Your task to perform on an android device: turn smart compose on in the gmail app Image 0: 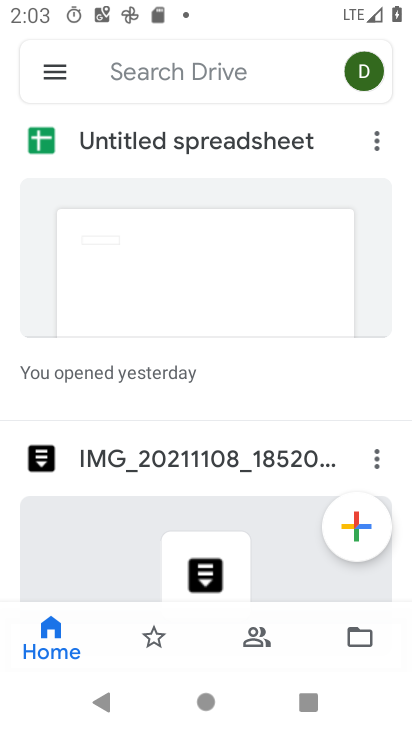
Step 0: press home button
Your task to perform on an android device: turn smart compose on in the gmail app Image 1: 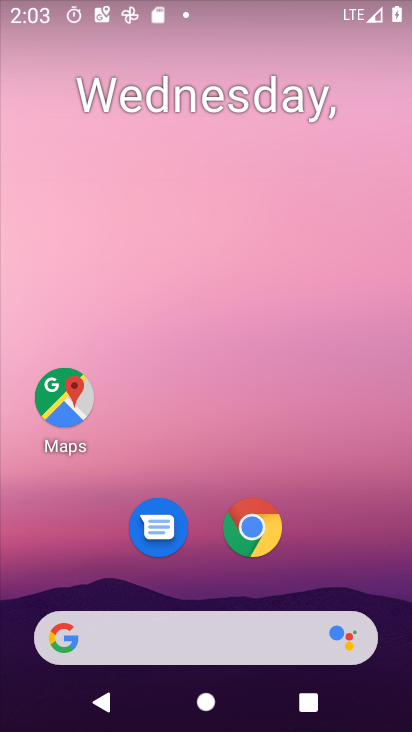
Step 1: drag from (219, 220) to (308, 0)
Your task to perform on an android device: turn smart compose on in the gmail app Image 2: 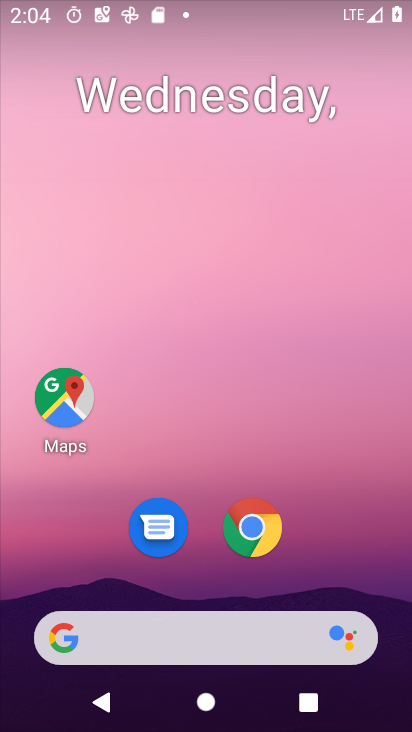
Step 2: drag from (308, 619) to (282, 37)
Your task to perform on an android device: turn smart compose on in the gmail app Image 3: 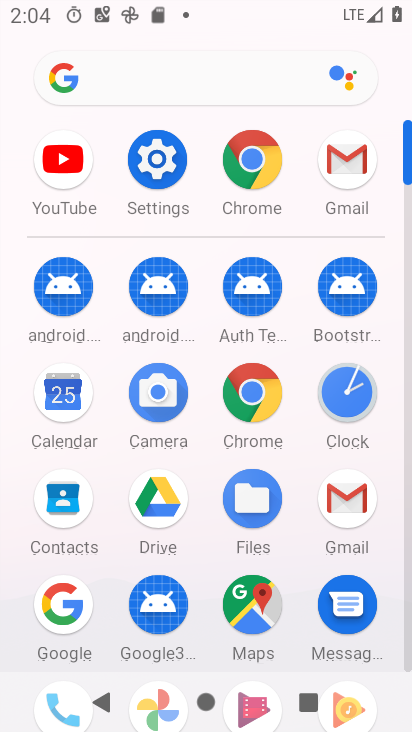
Step 3: click (343, 174)
Your task to perform on an android device: turn smart compose on in the gmail app Image 4: 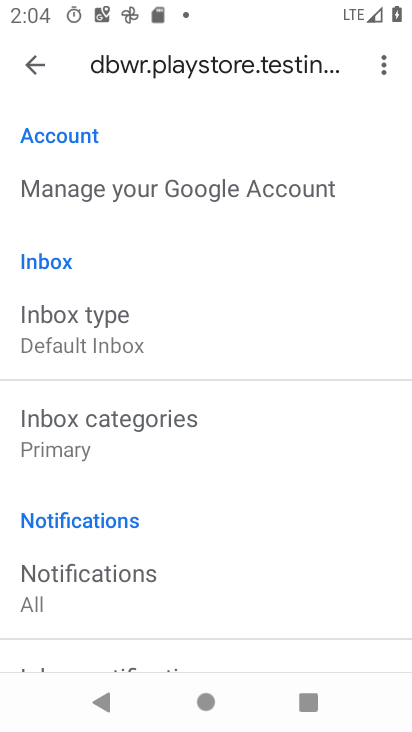
Step 4: task complete